Your task to perform on an android device: see tabs open on other devices in the chrome app Image 0: 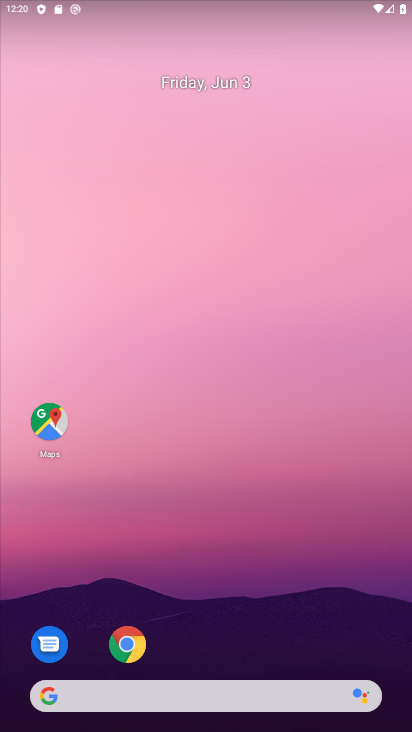
Step 0: click (126, 645)
Your task to perform on an android device: see tabs open on other devices in the chrome app Image 1: 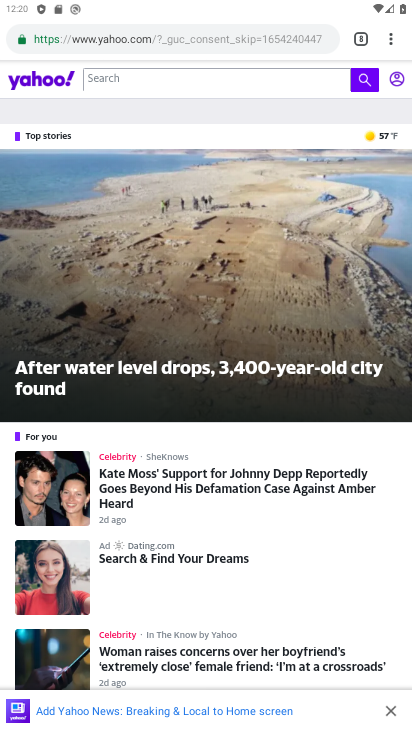
Step 1: click (391, 45)
Your task to perform on an android device: see tabs open on other devices in the chrome app Image 2: 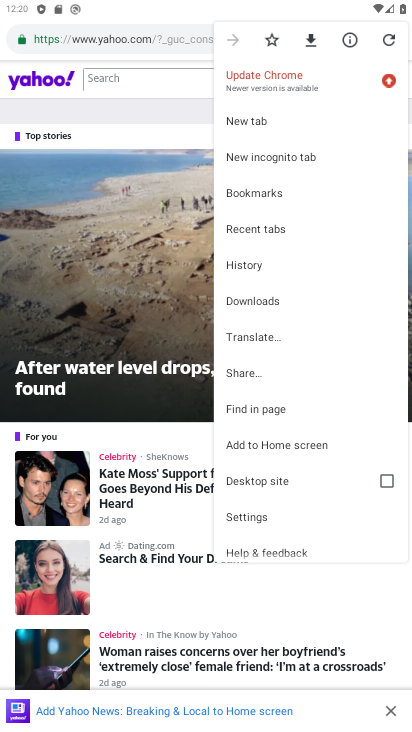
Step 2: click (250, 226)
Your task to perform on an android device: see tabs open on other devices in the chrome app Image 3: 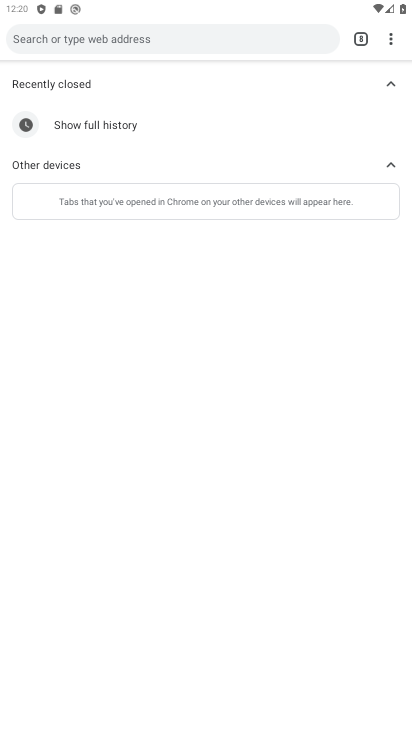
Step 3: task complete